Your task to perform on an android device: open device folders in google photos Image 0: 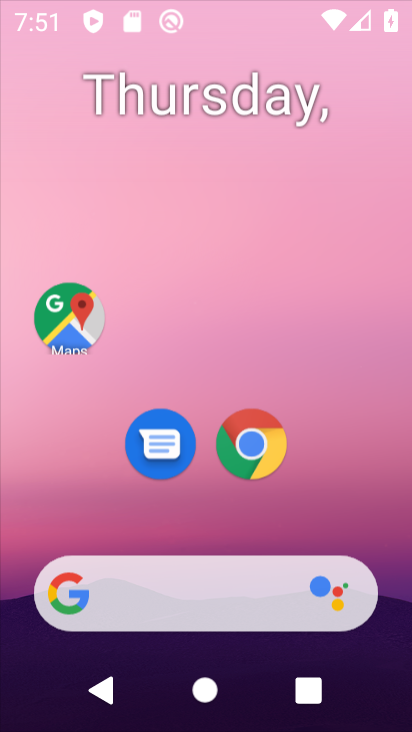
Step 0: click (232, 315)
Your task to perform on an android device: open device folders in google photos Image 1: 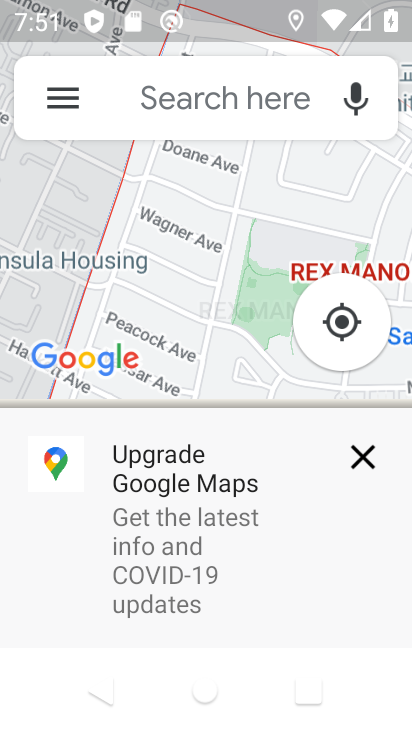
Step 1: press home button
Your task to perform on an android device: open device folders in google photos Image 2: 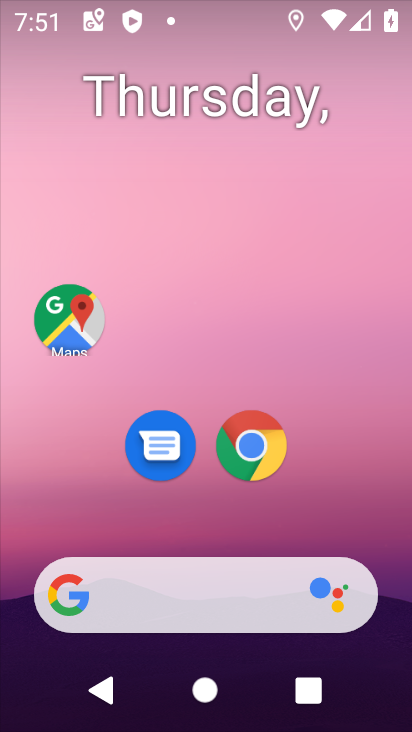
Step 2: drag from (233, 509) to (262, 125)
Your task to perform on an android device: open device folders in google photos Image 3: 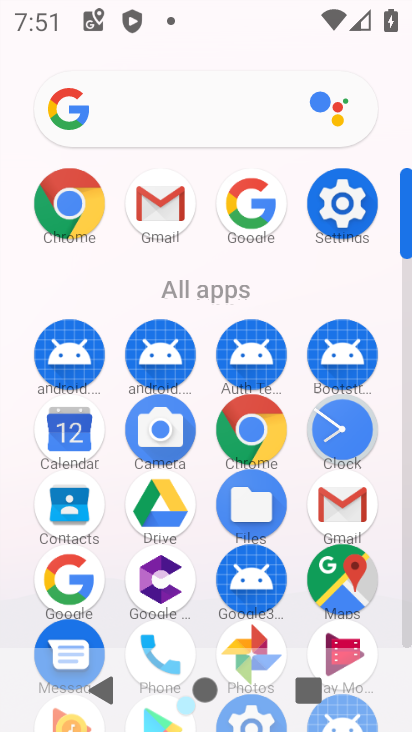
Step 3: click (236, 631)
Your task to perform on an android device: open device folders in google photos Image 4: 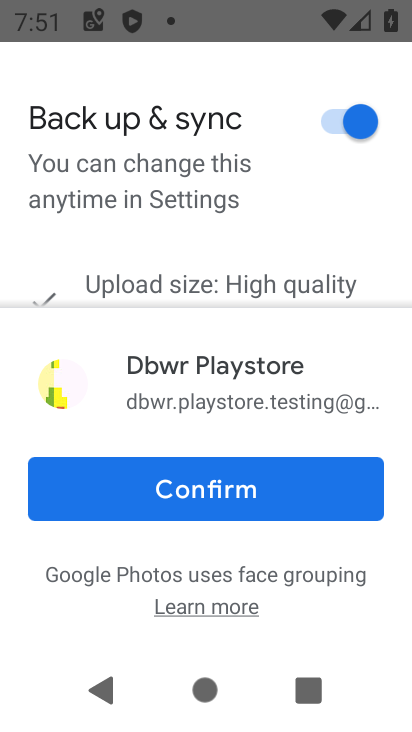
Step 4: click (243, 503)
Your task to perform on an android device: open device folders in google photos Image 5: 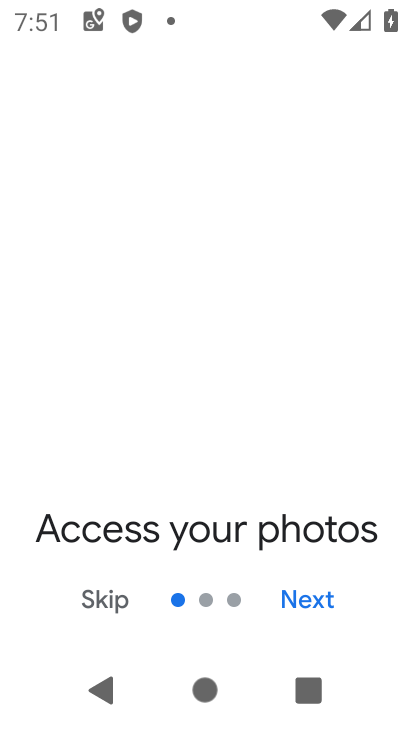
Step 5: drag from (211, 502) to (253, 215)
Your task to perform on an android device: open device folders in google photos Image 6: 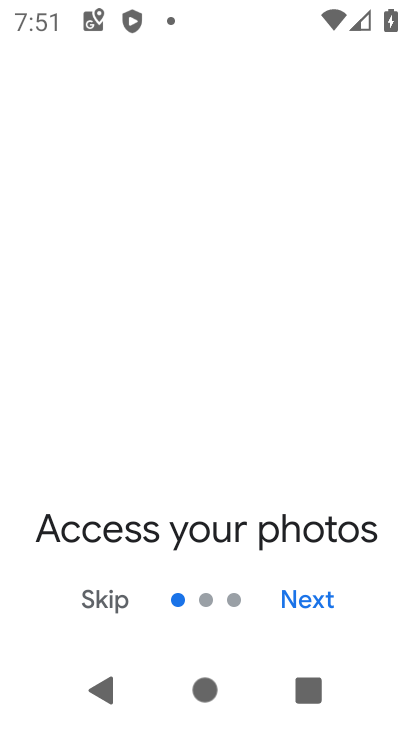
Step 6: click (101, 601)
Your task to perform on an android device: open device folders in google photos Image 7: 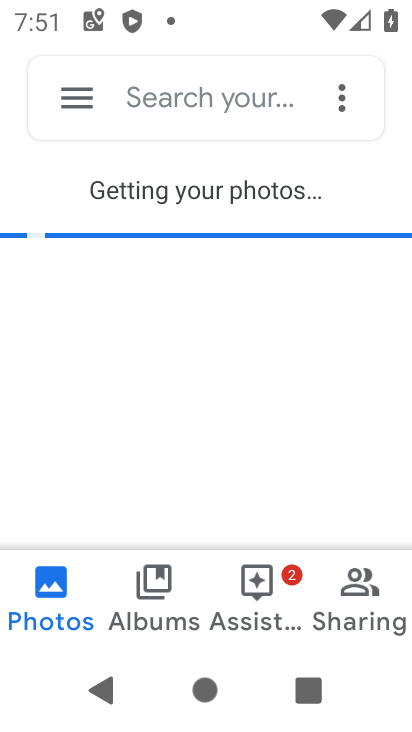
Step 7: click (75, 92)
Your task to perform on an android device: open device folders in google photos Image 8: 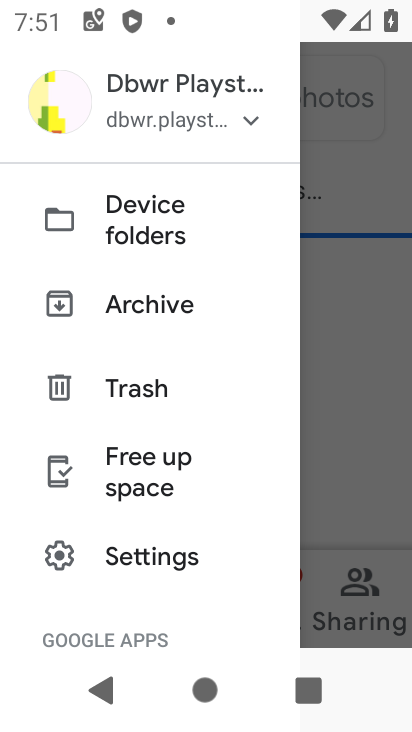
Step 8: click (144, 246)
Your task to perform on an android device: open device folders in google photos Image 9: 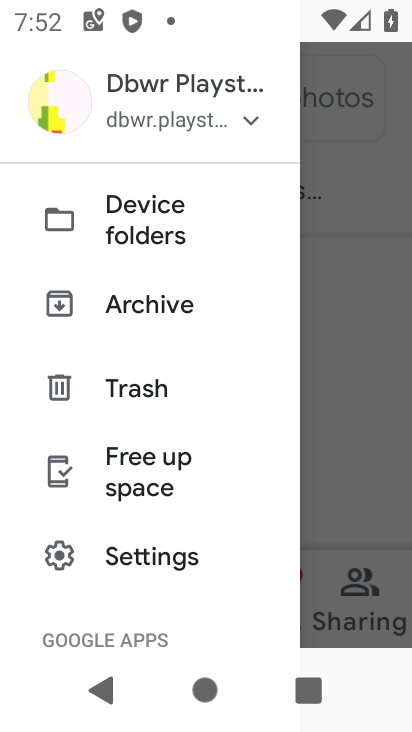
Step 9: click (161, 220)
Your task to perform on an android device: open device folders in google photos Image 10: 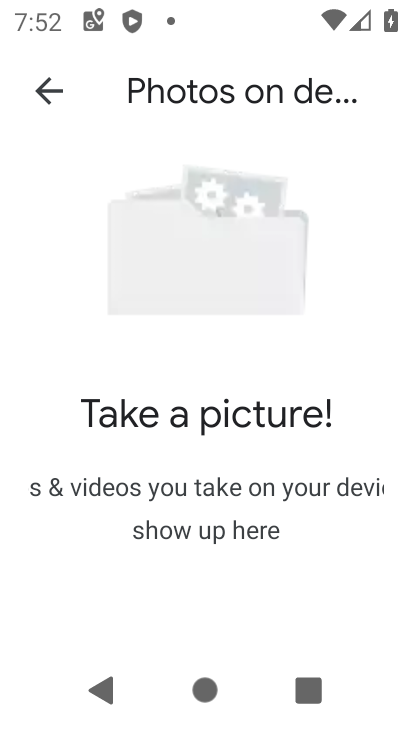
Step 10: drag from (270, 540) to (312, 285)
Your task to perform on an android device: open device folders in google photos Image 11: 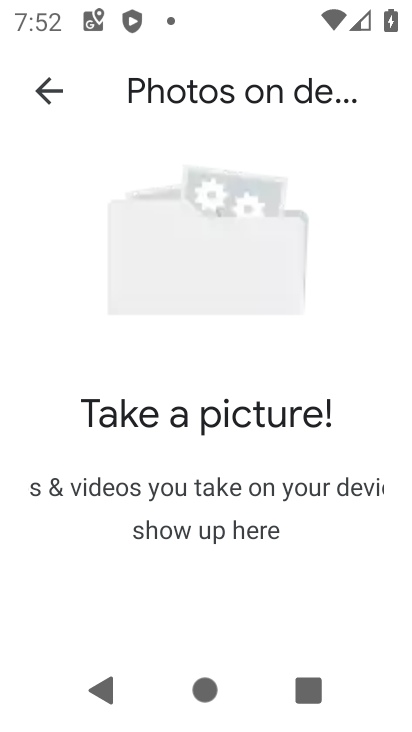
Step 11: drag from (193, 481) to (255, 313)
Your task to perform on an android device: open device folders in google photos Image 12: 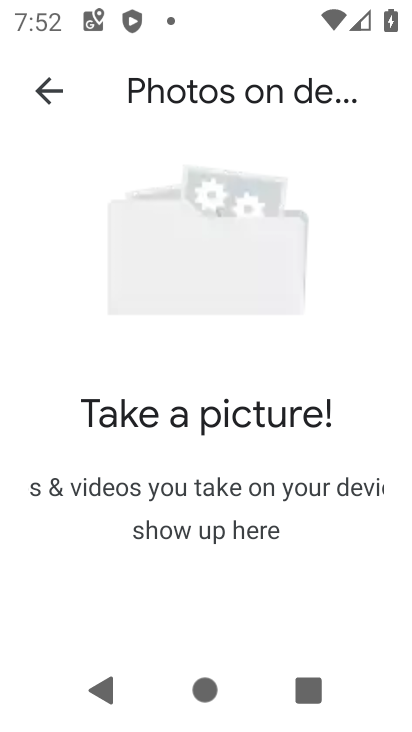
Step 12: click (266, 525)
Your task to perform on an android device: open device folders in google photos Image 13: 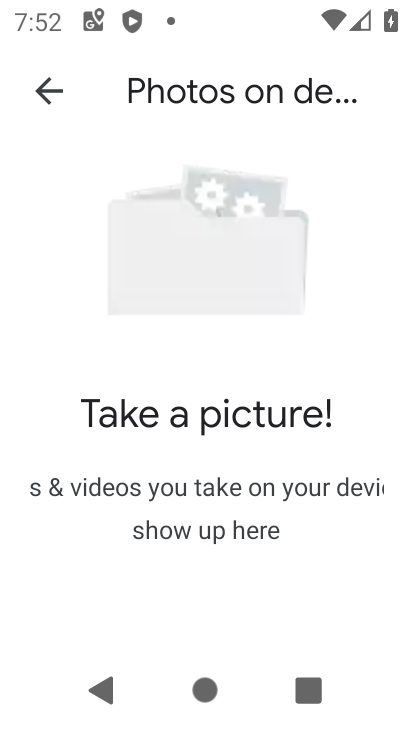
Step 13: click (263, 522)
Your task to perform on an android device: open device folders in google photos Image 14: 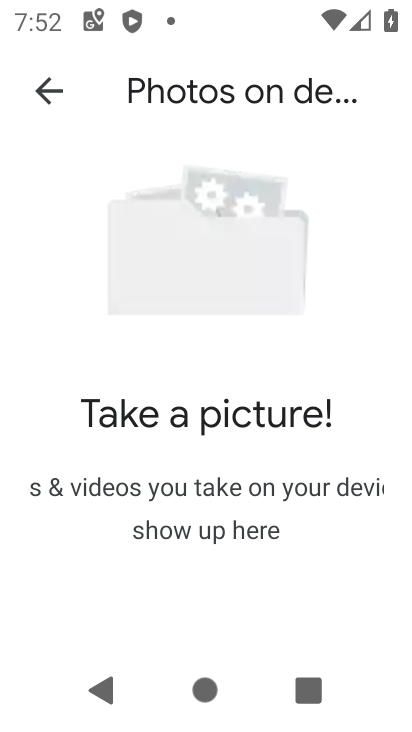
Step 14: click (248, 470)
Your task to perform on an android device: open device folders in google photos Image 15: 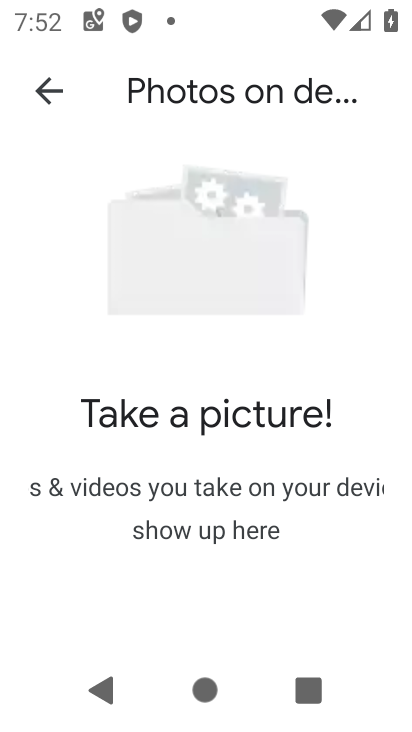
Step 15: click (214, 428)
Your task to perform on an android device: open device folders in google photos Image 16: 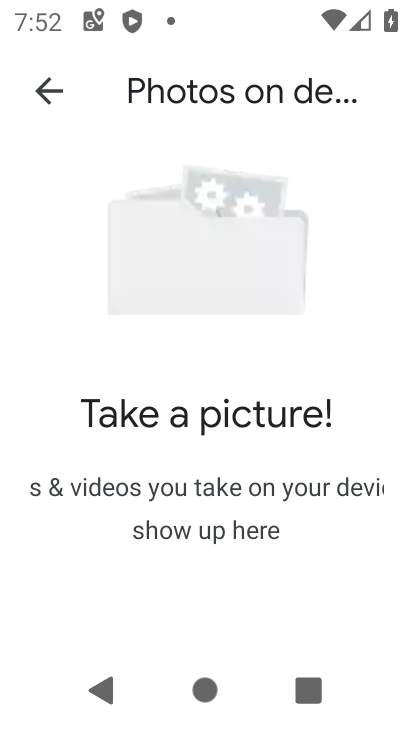
Step 16: task complete